Your task to perform on an android device: turn vacation reply on in the gmail app Image 0: 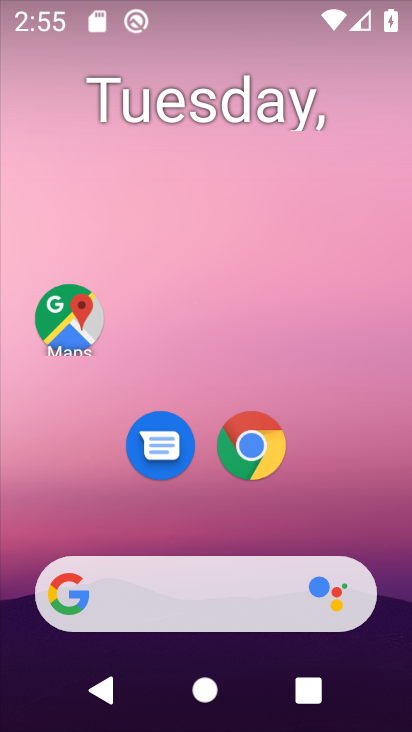
Step 0: drag from (335, 545) to (324, 3)
Your task to perform on an android device: turn vacation reply on in the gmail app Image 1: 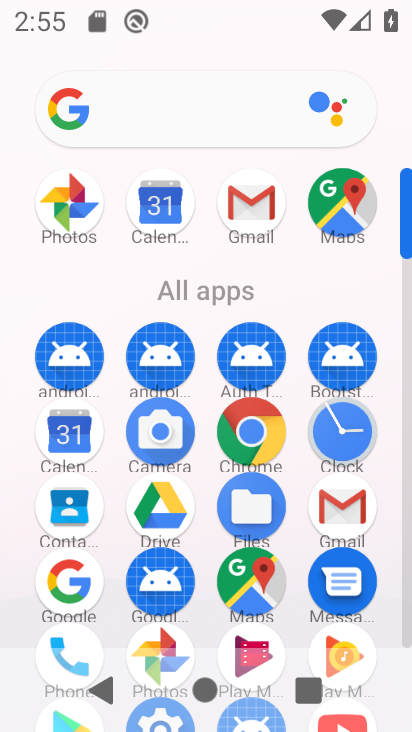
Step 1: click (241, 207)
Your task to perform on an android device: turn vacation reply on in the gmail app Image 2: 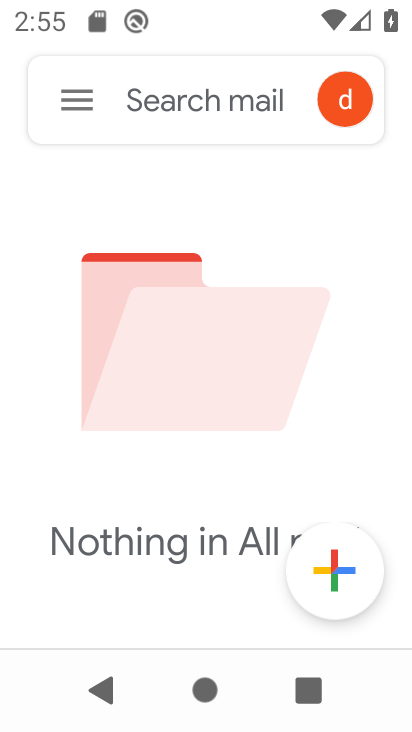
Step 2: click (76, 93)
Your task to perform on an android device: turn vacation reply on in the gmail app Image 3: 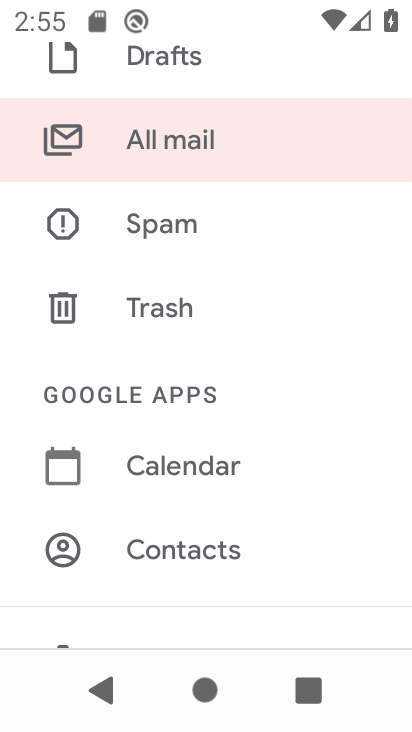
Step 3: drag from (238, 528) to (218, 93)
Your task to perform on an android device: turn vacation reply on in the gmail app Image 4: 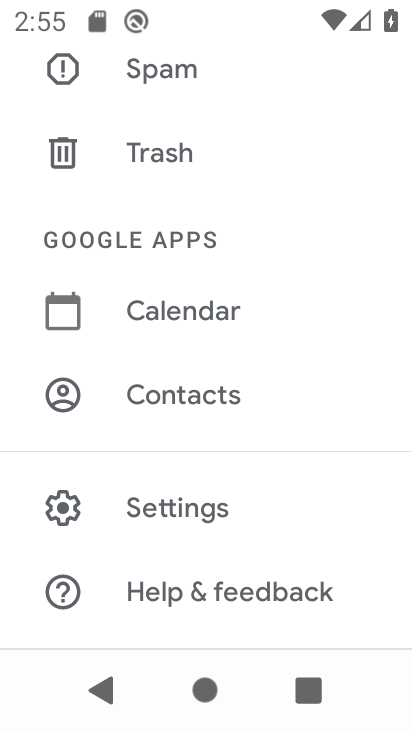
Step 4: click (170, 518)
Your task to perform on an android device: turn vacation reply on in the gmail app Image 5: 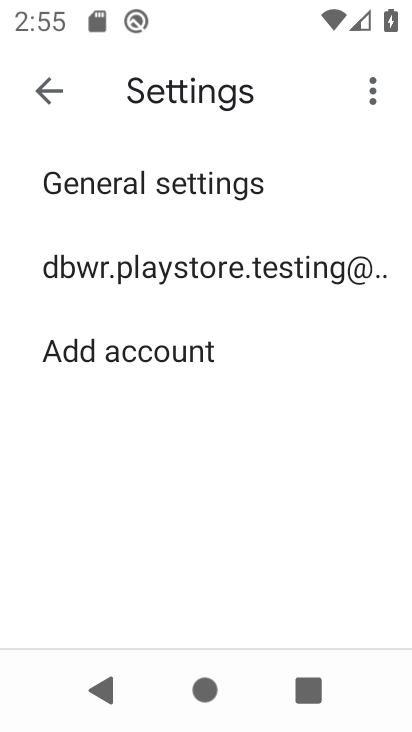
Step 5: click (118, 269)
Your task to perform on an android device: turn vacation reply on in the gmail app Image 6: 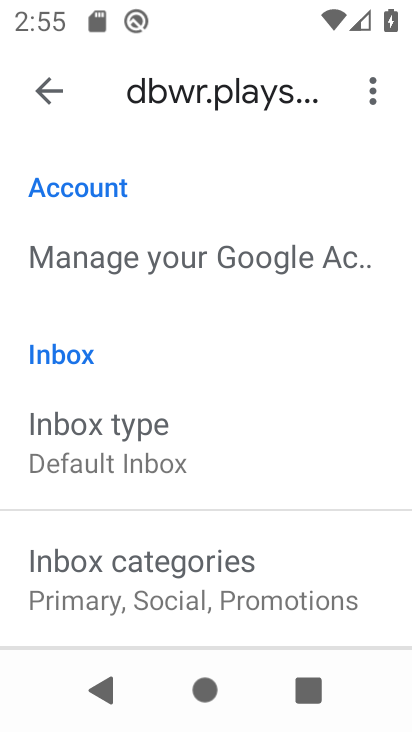
Step 6: drag from (250, 550) to (222, 143)
Your task to perform on an android device: turn vacation reply on in the gmail app Image 7: 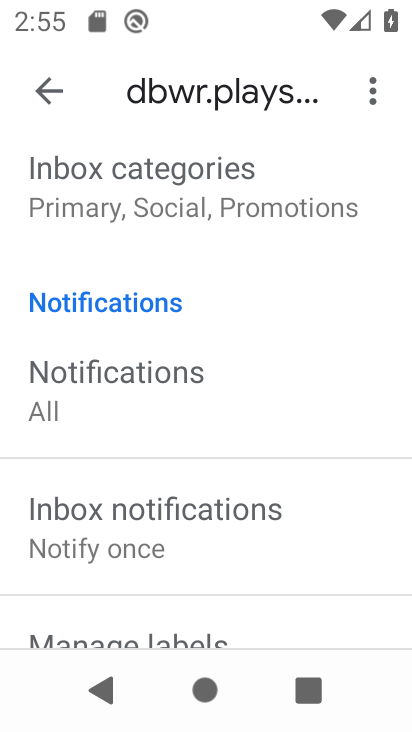
Step 7: drag from (184, 483) to (174, 141)
Your task to perform on an android device: turn vacation reply on in the gmail app Image 8: 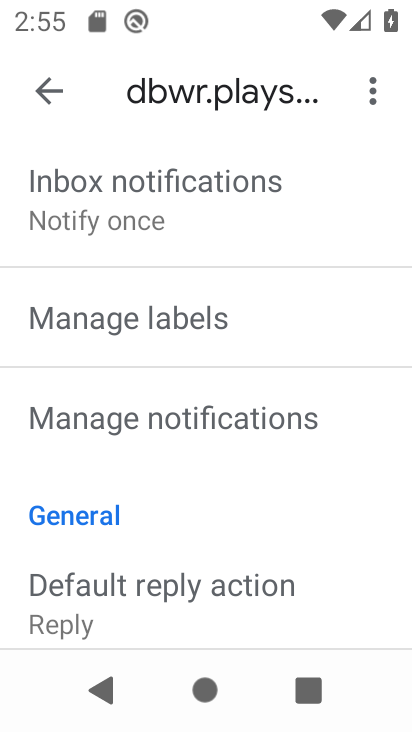
Step 8: drag from (176, 486) to (157, 149)
Your task to perform on an android device: turn vacation reply on in the gmail app Image 9: 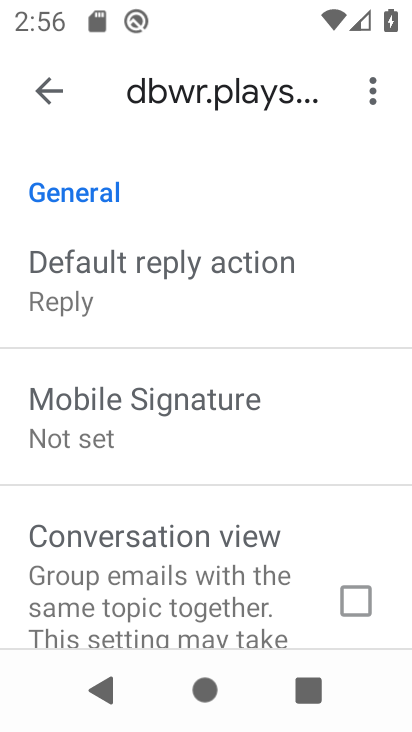
Step 9: drag from (156, 479) to (124, 148)
Your task to perform on an android device: turn vacation reply on in the gmail app Image 10: 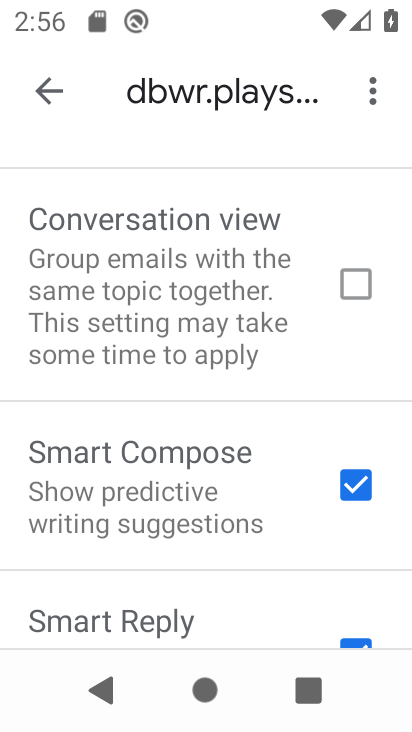
Step 10: drag from (116, 469) to (124, 146)
Your task to perform on an android device: turn vacation reply on in the gmail app Image 11: 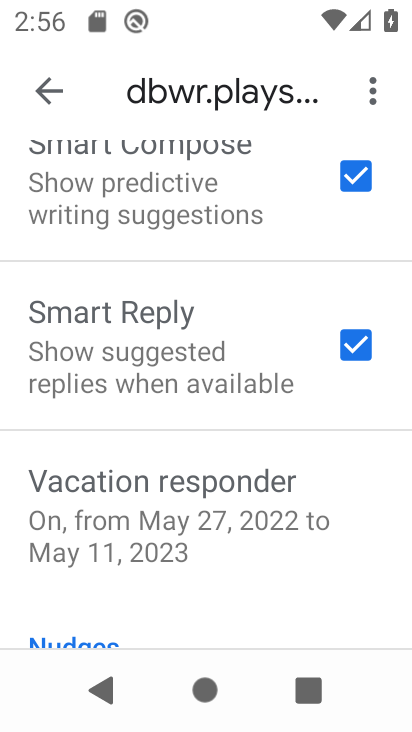
Step 11: click (130, 516)
Your task to perform on an android device: turn vacation reply on in the gmail app Image 12: 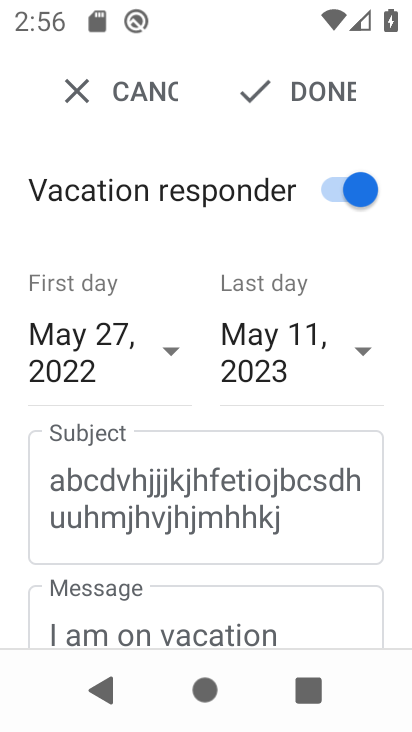
Step 12: click (300, 96)
Your task to perform on an android device: turn vacation reply on in the gmail app Image 13: 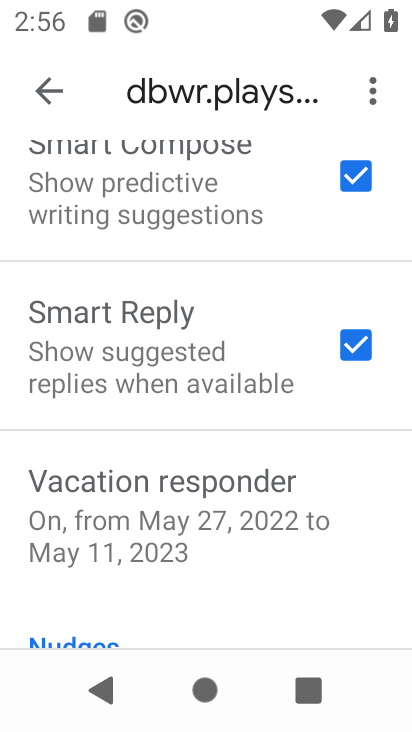
Step 13: task complete